Your task to perform on an android device: set default search engine in the chrome app Image 0: 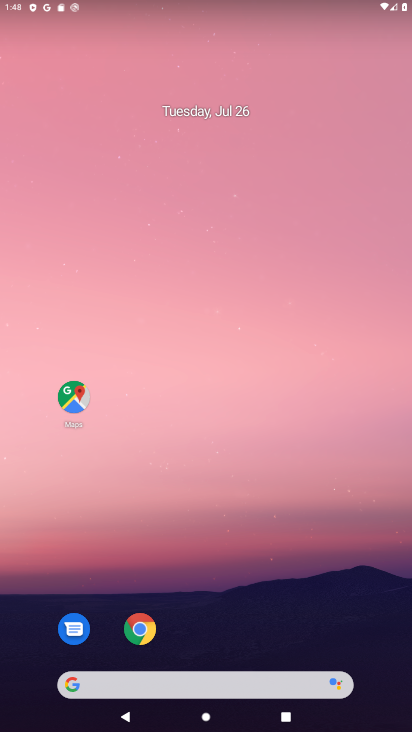
Step 0: click (151, 629)
Your task to perform on an android device: set default search engine in the chrome app Image 1: 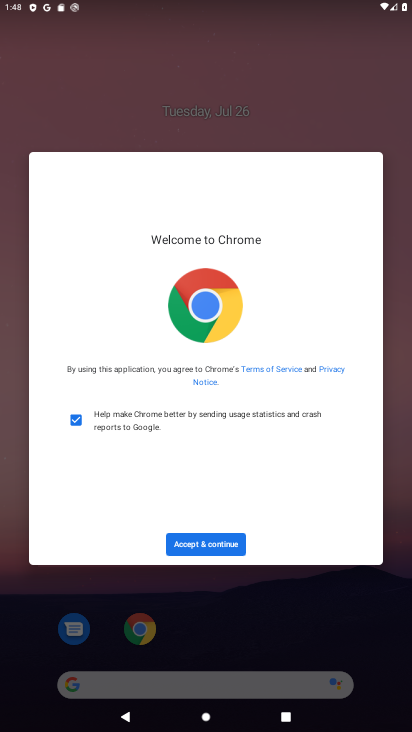
Step 1: click (196, 547)
Your task to perform on an android device: set default search engine in the chrome app Image 2: 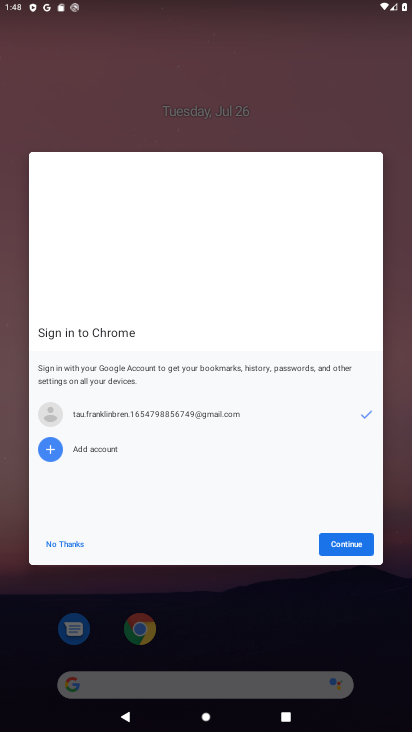
Step 2: click (367, 546)
Your task to perform on an android device: set default search engine in the chrome app Image 3: 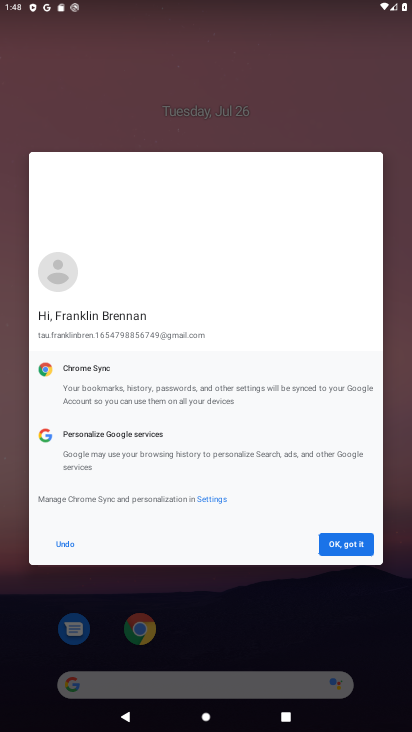
Step 3: click (367, 546)
Your task to perform on an android device: set default search engine in the chrome app Image 4: 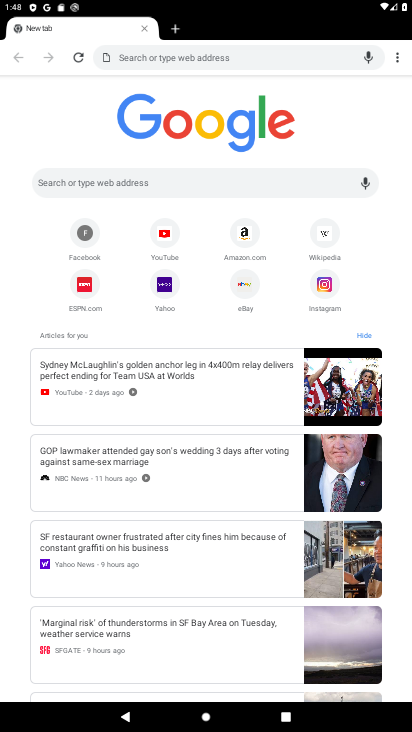
Step 4: click (394, 55)
Your task to perform on an android device: set default search engine in the chrome app Image 5: 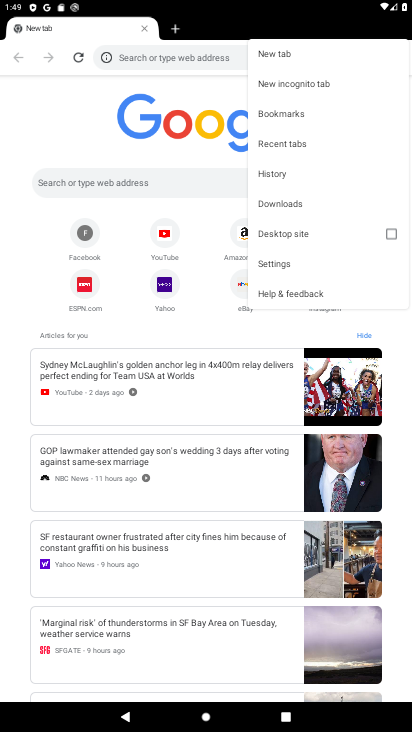
Step 5: click (303, 263)
Your task to perform on an android device: set default search engine in the chrome app Image 6: 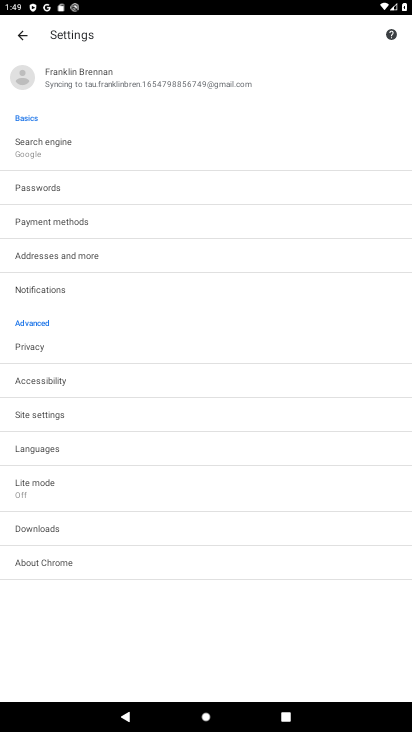
Step 6: click (169, 151)
Your task to perform on an android device: set default search engine in the chrome app Image 7: 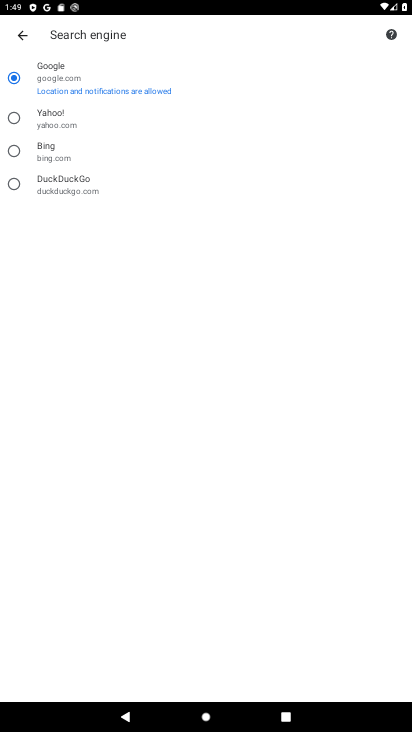
Step 7: click (72, 185)
Your task to perform on an android device: set default search engine in the chrome app Image 8: 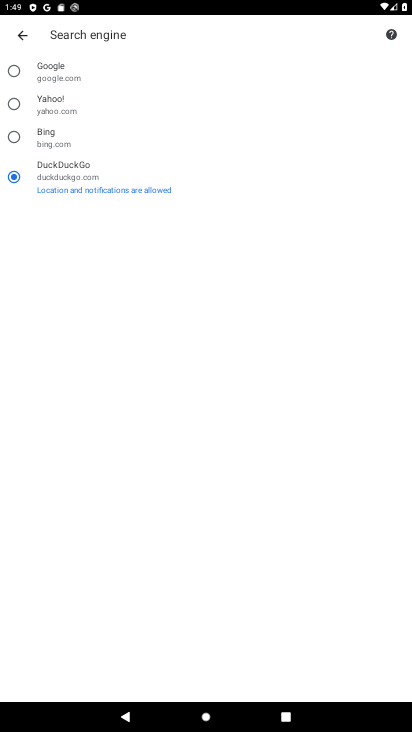
Step 8: task complete